Your task to perform on an android device: Search for pizza restaurants on Maps Image 0: 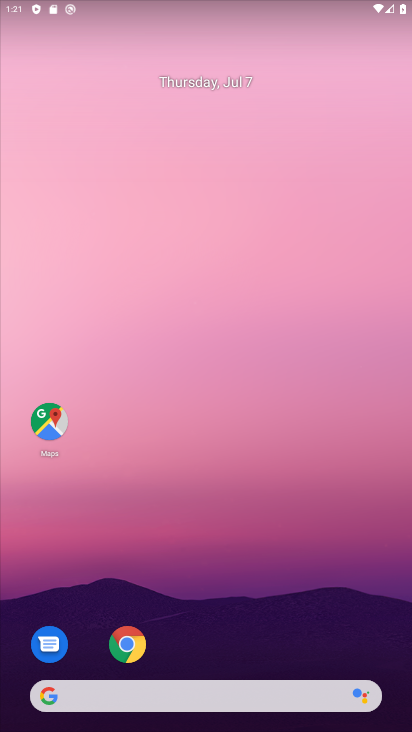
Step 0: click (43, 422)
Your task to perform on an android device: Search for pizza restaurants on Maps Image 1: 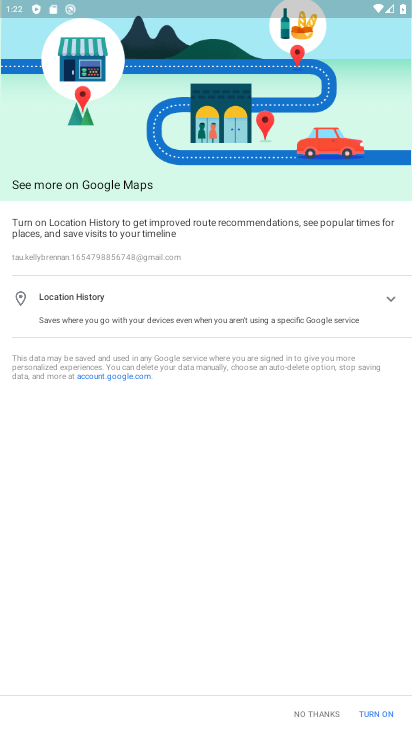
Step 1: click (381, 714)
Your task to perform on an android device: Search for pizza restaurants on Maps Image 2: 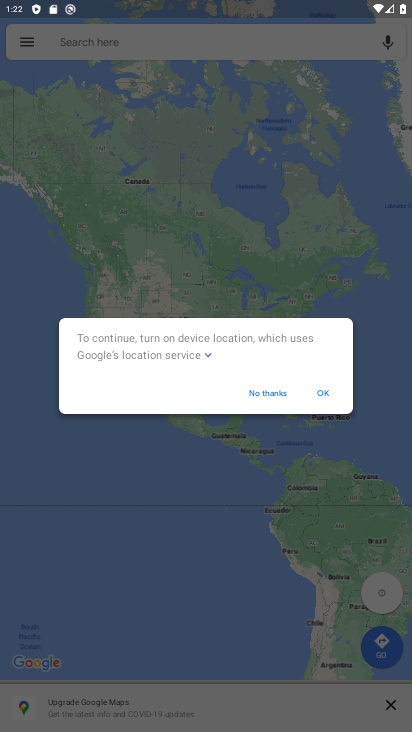
Step 2: drag from (322, 396) to (284, 396)
Your task to perform on an android device: Search for pizza restaurants on Maps Image 3: 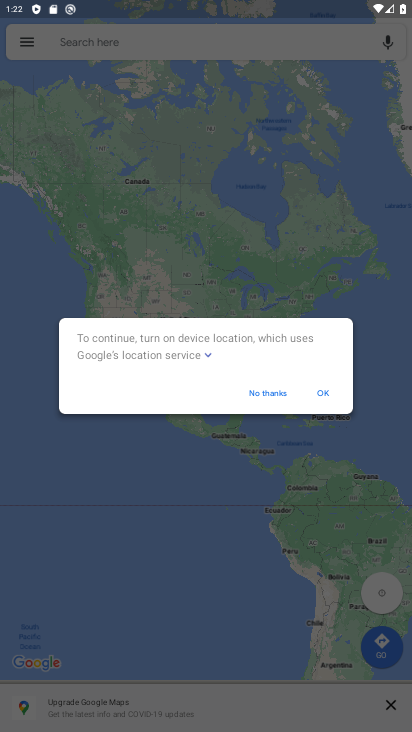
Step 3: click (314, 392)
Your task to perform on an android device: Search for pizza restaurants on Maps Image 4: 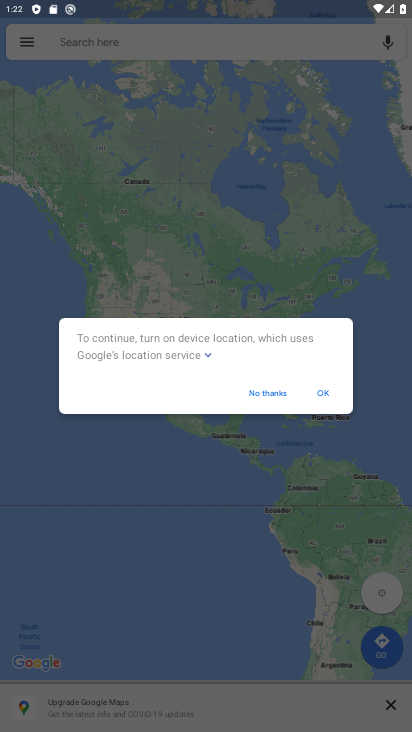
Step 4: click (320, 397)
Your task to perform on an android device: Search for pizza restaurants on Maps Image 5: 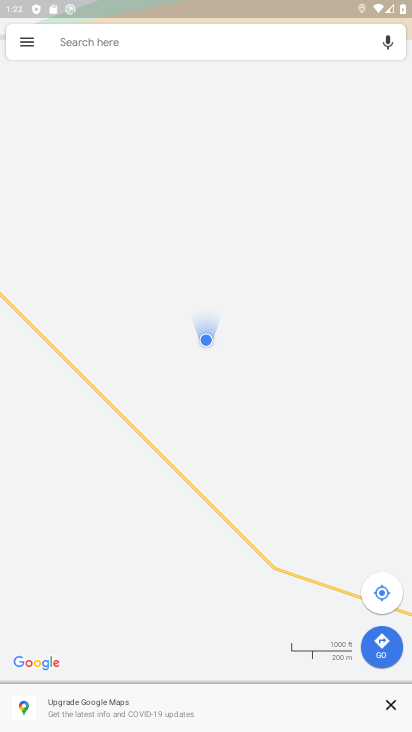
Step 5: click (187, 48)
Your task to perform on an android device: Search for pizza restaurants on Maps Image 6: 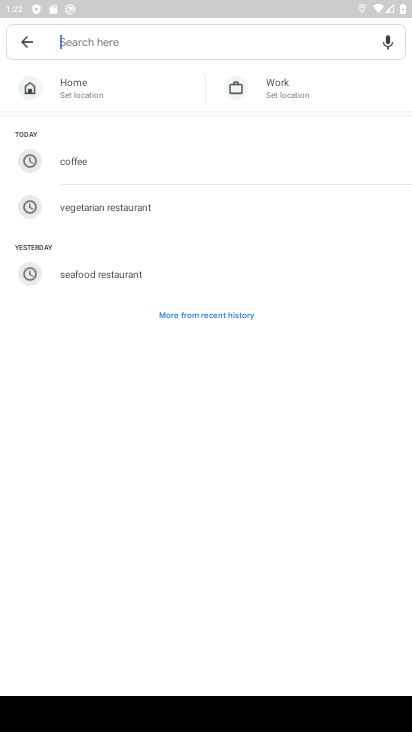
Step 6: type "pizza restaurants"
Your task to perform on an android device: Search for pizza restaurants on Maps Image 7: 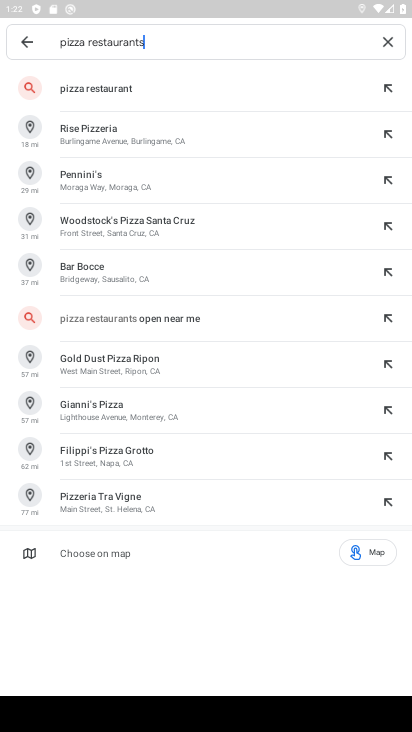
Step 7: click (133, 95)
Your task to perform on an android device: Search for pizza restaurants on Maps Image 8: 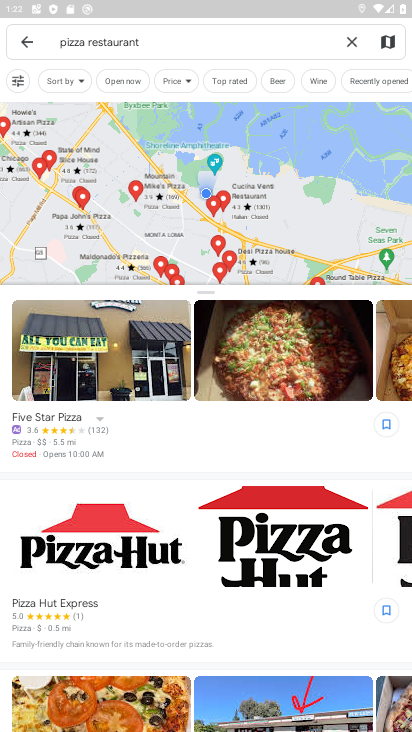
Step 8: task complete